Your task to perform on an android device: Go to Google Image 0: 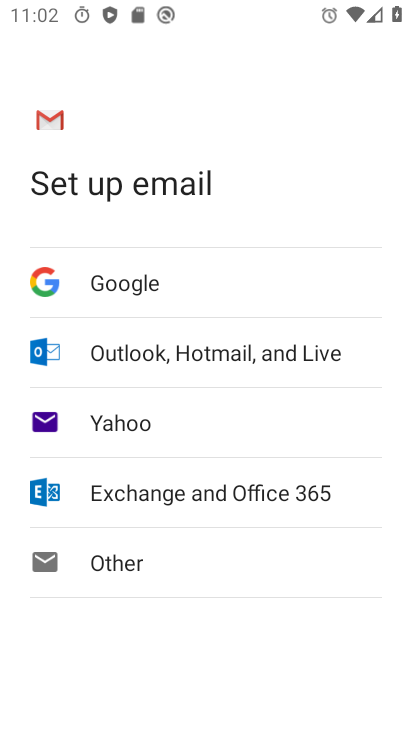
Step 0: press back button
Your task to perform on an android device: Go to Google Image 1: 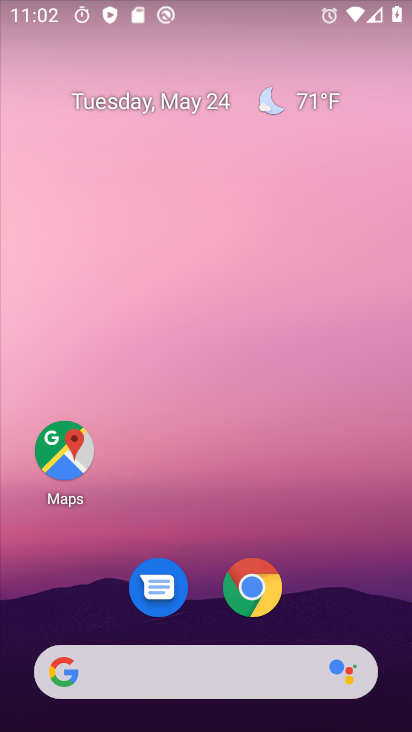
Step 1: drag from (362, 636) to (210, 111)
Your task to perform on an android device: Go to Google Image 2: 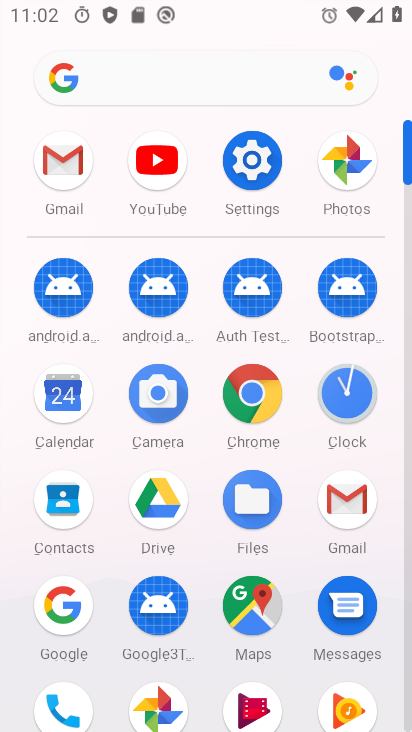
Step 2: click (57, 607)
Your task to perform on an android device: Go to Google Image 3: 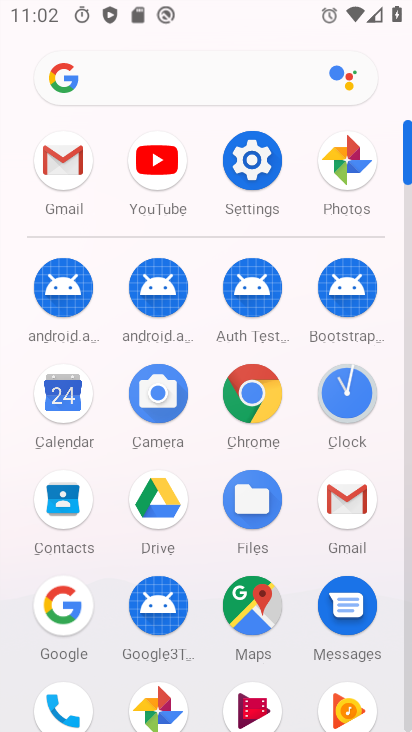
Step 3: click (57, 607)
Your task to perform on an android device: Go to Google Image 4: 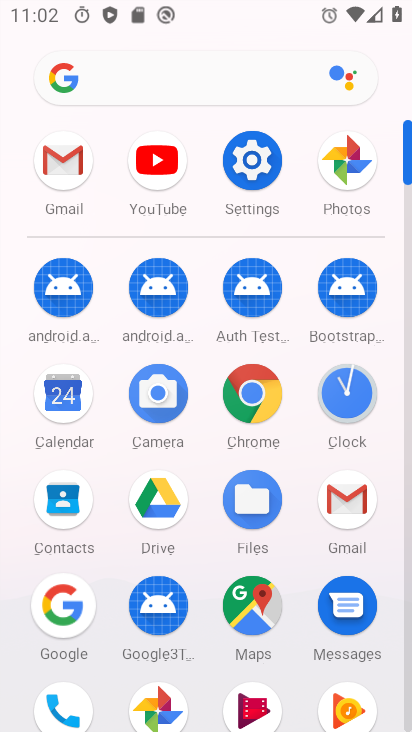
Step 4: click (57, 606)
Your task to perform on an android device: Go to Google Image 5: 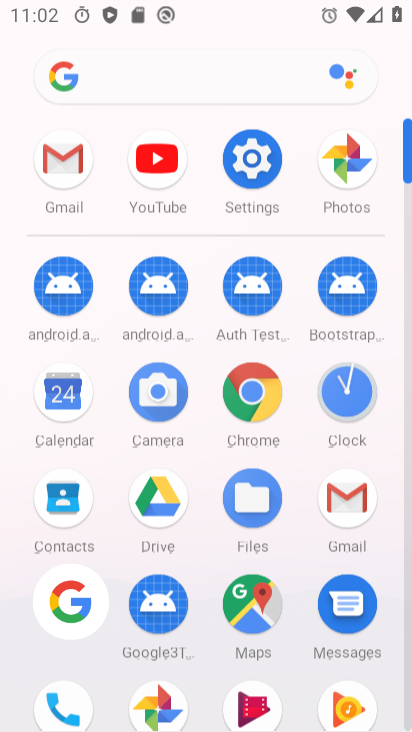
Step 5: click (60, 604)
Your task to perform on an android device: Go to Google Image 6: 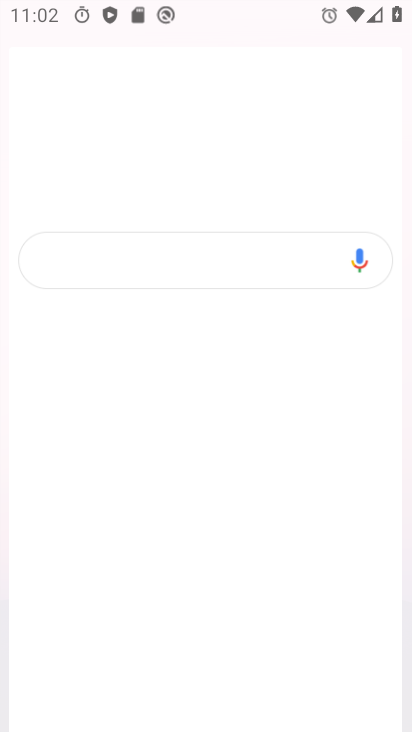
Step 6: click (63, 600)
Your task to perform on an android device: Go to Google Image 7: 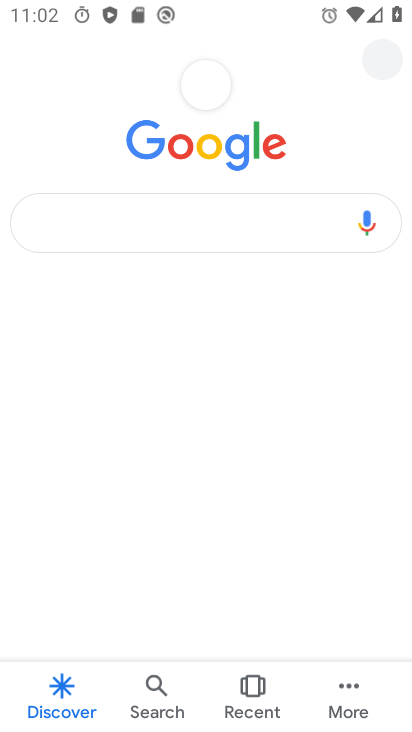
Step 7: click (64, 599)
Your task to perform on an android device: Go to Google Image 8: 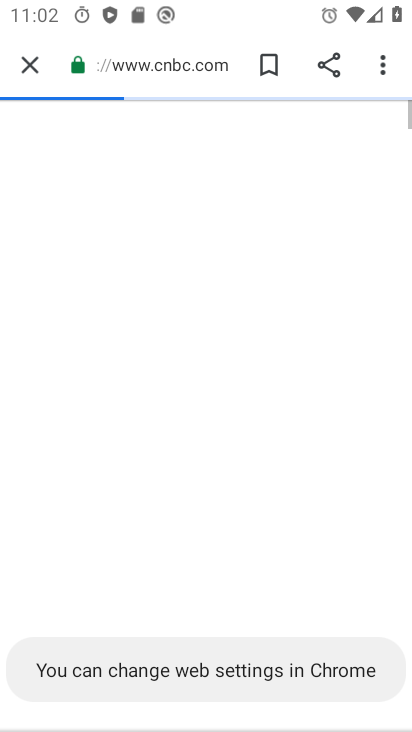
Step 8: task complete